Your task to perform on an android device: turn pop-ups on in chrome Image 0: 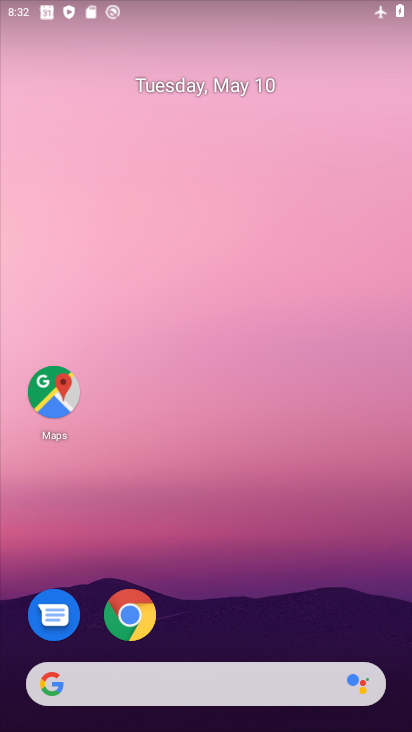
Step 0: drag from (236, 479) to (236, 207)
Your task to perform on an android device: turn pop-ups on in chrome Image 1: 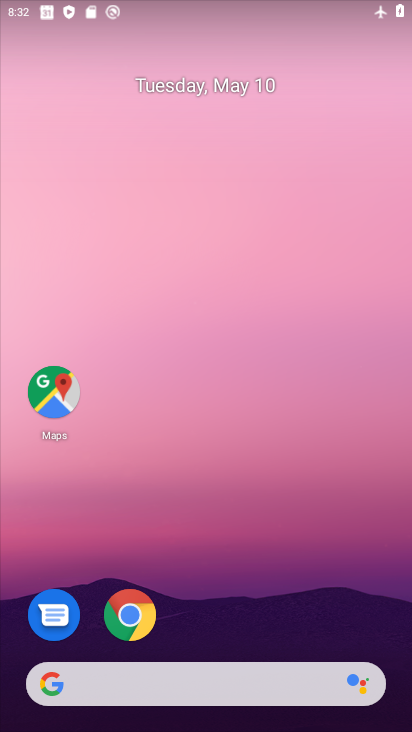
Step 1: click (125, 614)
Your task to perform on an android device: turn pop-ups on in chrome Image 2: 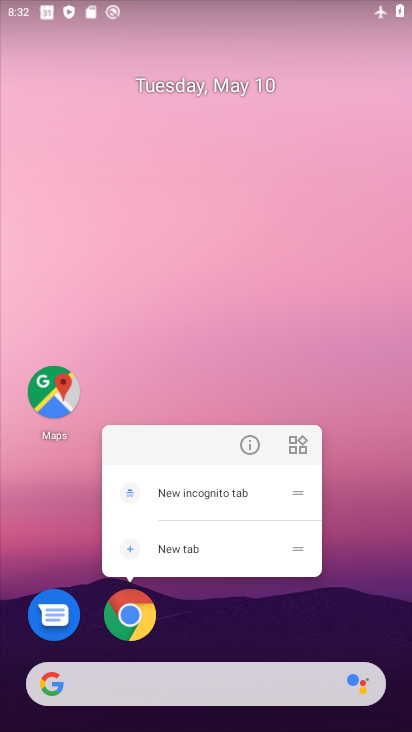
Step 2: click (253, 436)
Your task to perform on an android device: turn pop-ups on in chrome Image 3: 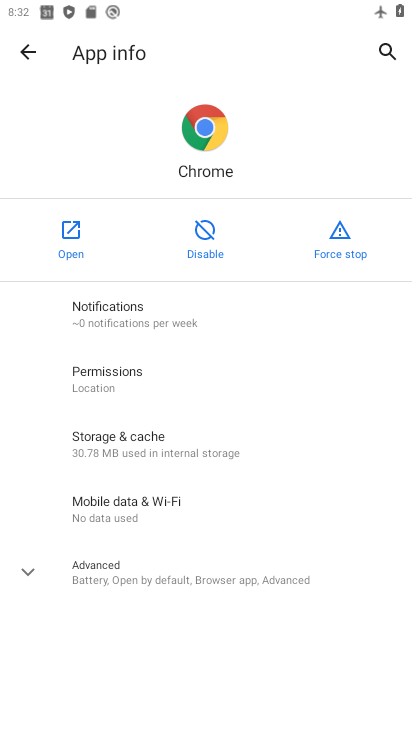
Step 3: click (79, 223)
Your task to perform on an android device: turn pop-ups on in chrome Image 4: 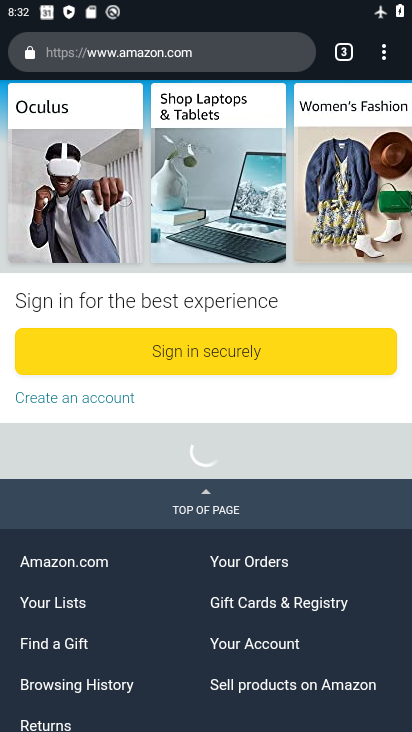
Step 4: drag from (382, 51) to (230, 568)
Your task to perform on an android device: turn pop-ups on in chrome Image 5: 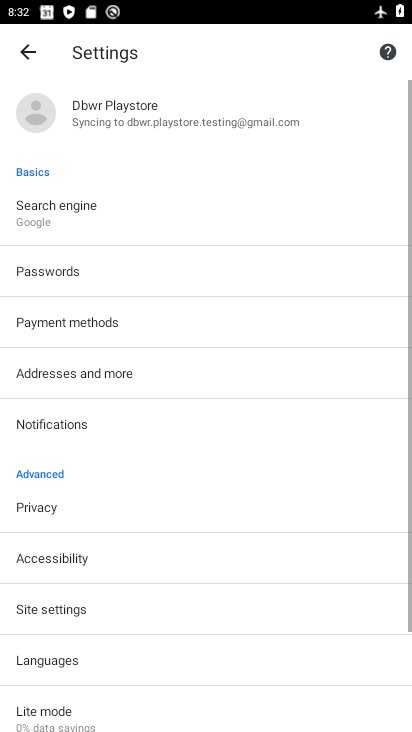
Step 5: drag from (176, 554) to (280, 165)
Your task to perform on an android device: turn pop-ups on in chrome Image 6: 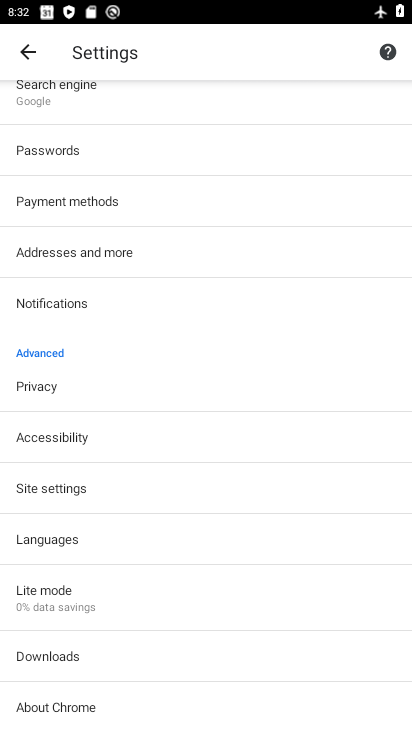
Step 6: click (103, 487)
Your task to perform on an android device: turn pop-ups on in chrome Image 7: 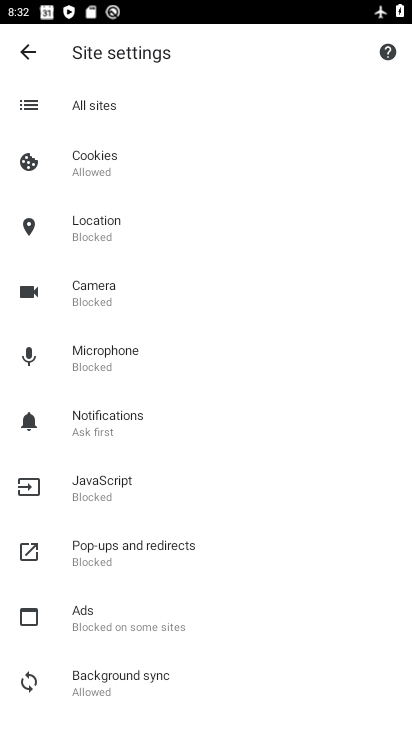
Step 7: click (156, 545)
Your task to perform on an android device: turn pop-ups on in chrome Image 8: 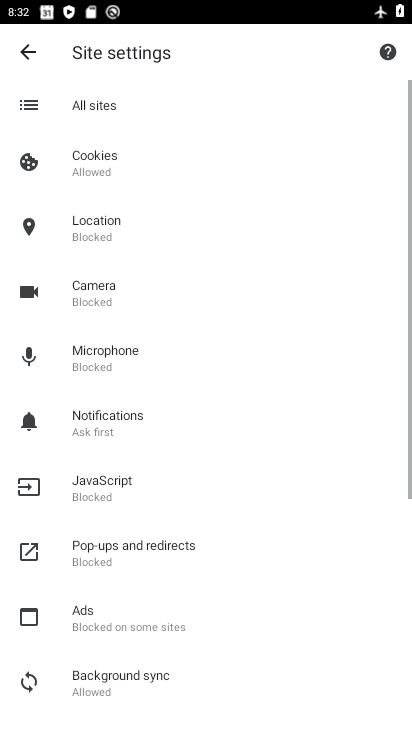
Step 8: click (156, 545)
Your task to perform on an android device: turn pop-ups on in chrome Image 9: 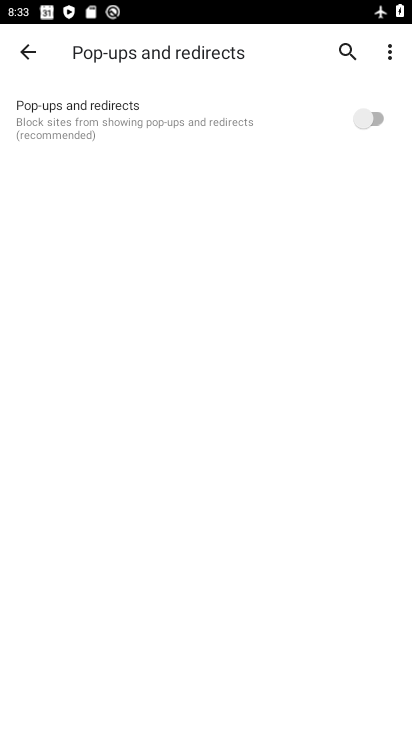
Step 9: click (381, 96)
Your task to perform on an android device: turn pop-ups on in chrome Image 10: 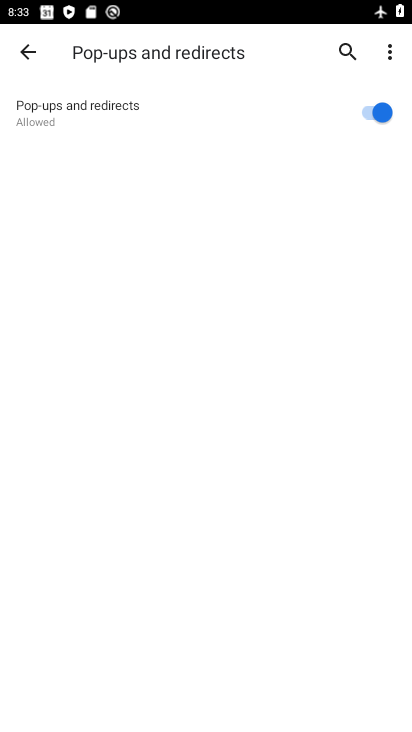
Step 10: task complete